Your task to perform on an android device: Open my contact list Image 0: 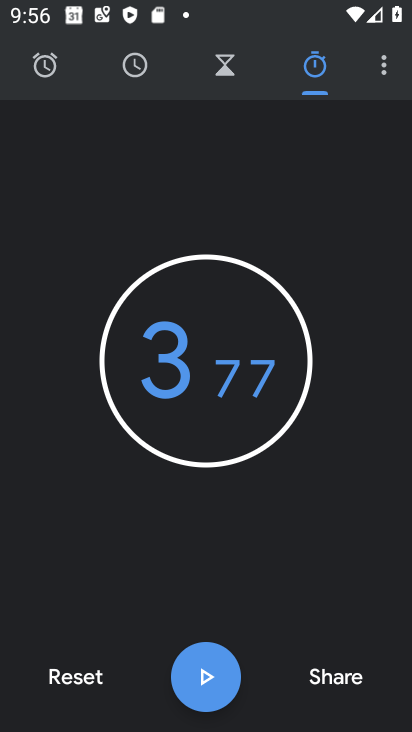
Step 0: press home button
Your task to perform on an android device: Open my contact list Image 1: 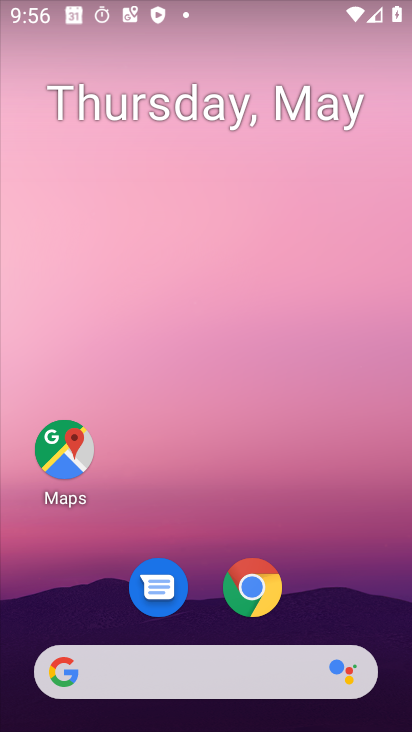
Step 1: drag from (349, 632) to (310, 11)
Your task to perform on an android device: Open my contact list Image 2: 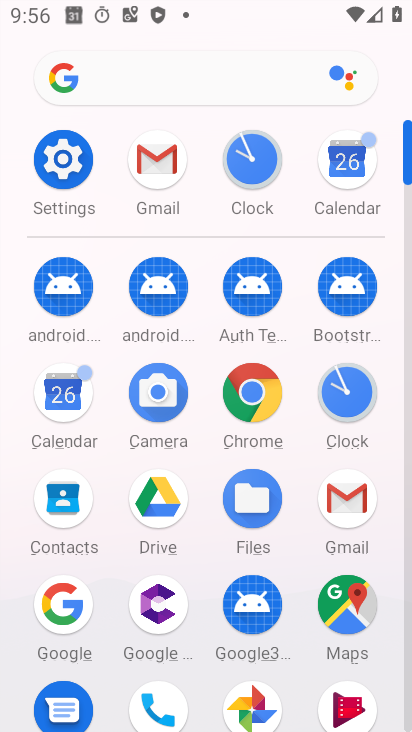
Step 2: click (69, 505)
Your task to perform on an android device: Open my contact list Image 3: 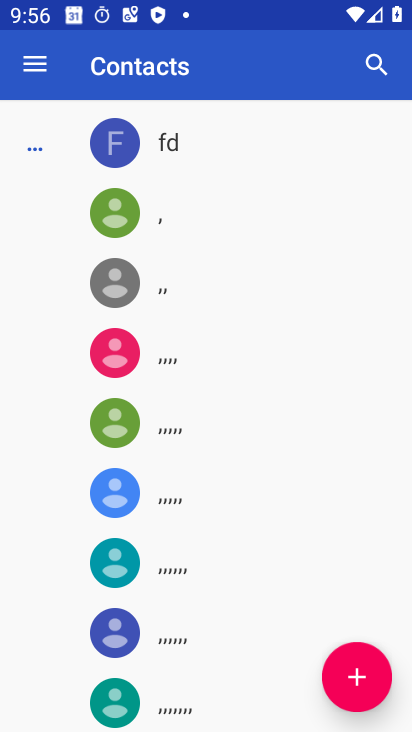
Step 3: task complete